Your task to perform on an android device: open a bookmark in the chrome app Image 0: 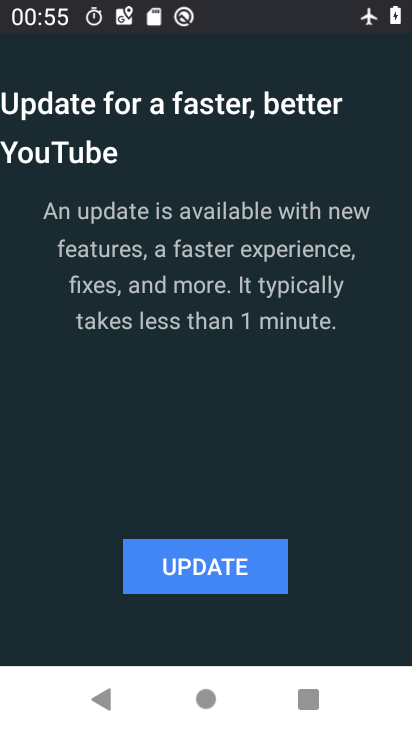
Step 0: press back button
Your task to perform on an android device: open a bookmark in the chrome app Image 1: 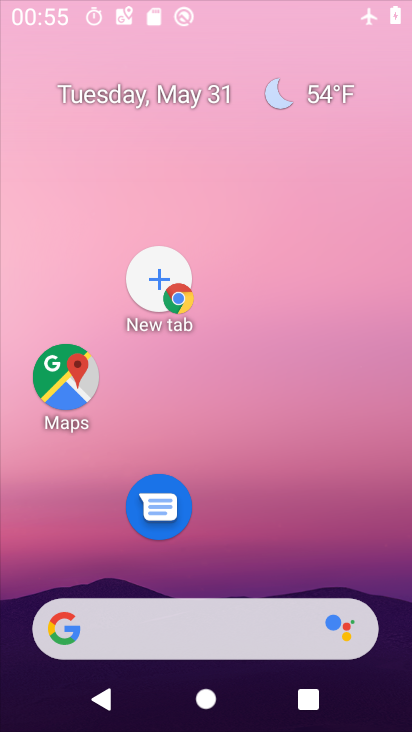
Step 1: press back button
Your task to perform on an android device: open a bookmark in the chrome app Image 2: 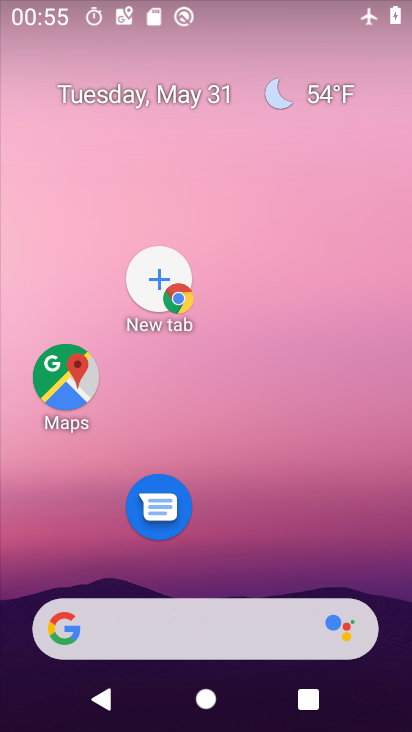
Step 2: drag from (225, 714) to (203, 225)
Your task to perform on an android device: open a bookmark in the chrome app Image 3: 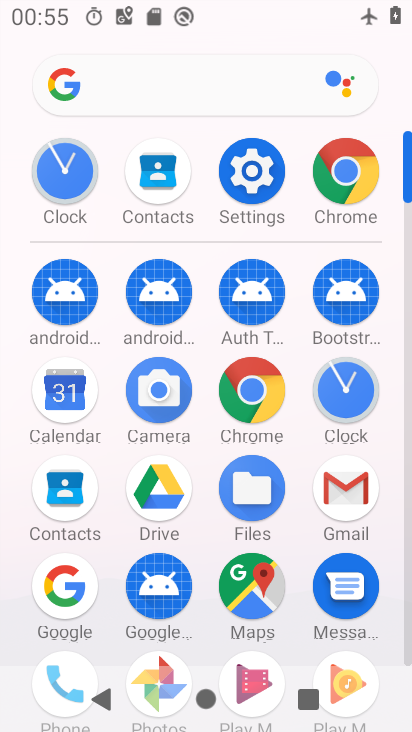
Step 3: click (334, 174)
Your task to perform on an android device: open a bookmark in the chrome app Image 4: 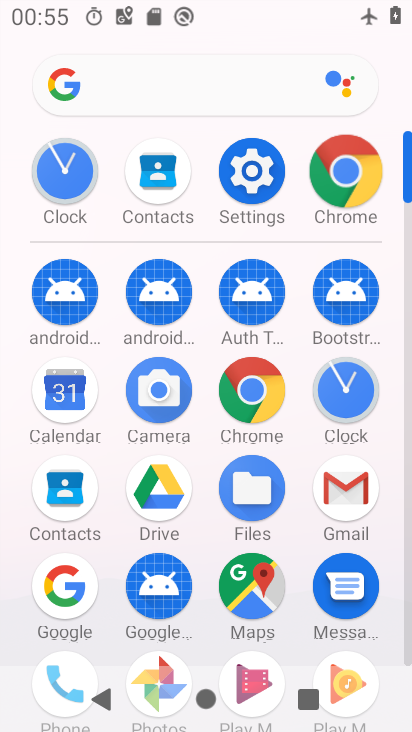
Step 4: click (335, 173)
Your task to perform on an android device: open a bookmark in the chrome app Image 5: 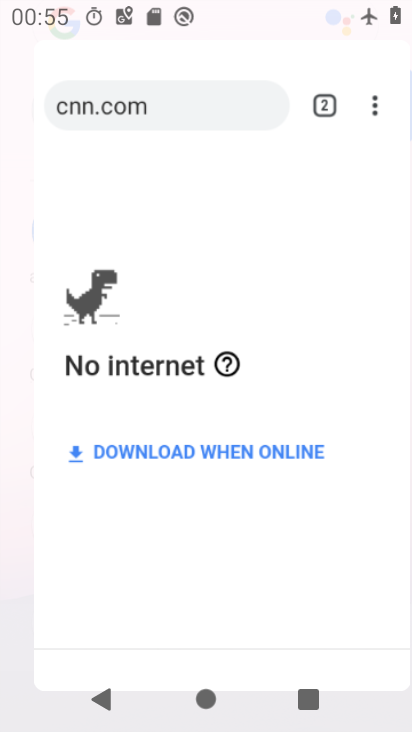
Step 5: click (335, 173)
Your task to perform on an android device: open a bookmark in the chrome app Image 6: 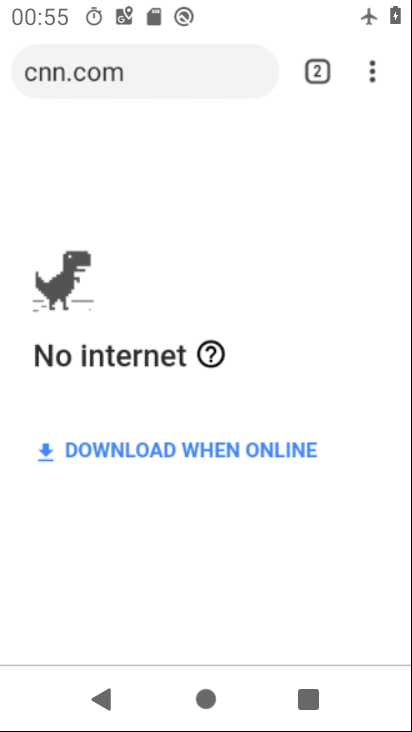
Step 6: click (335, 173)
Your task to perform on an android device: open a bookmark in the chrome app Image 7: 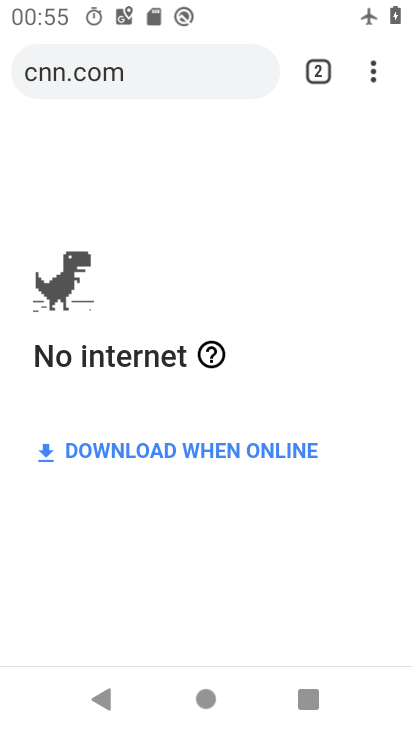
Step 7: drag from (372, 73) to (127, 268)
Your task to perform on an android device: open a bookmark in the chrome app Image 8: 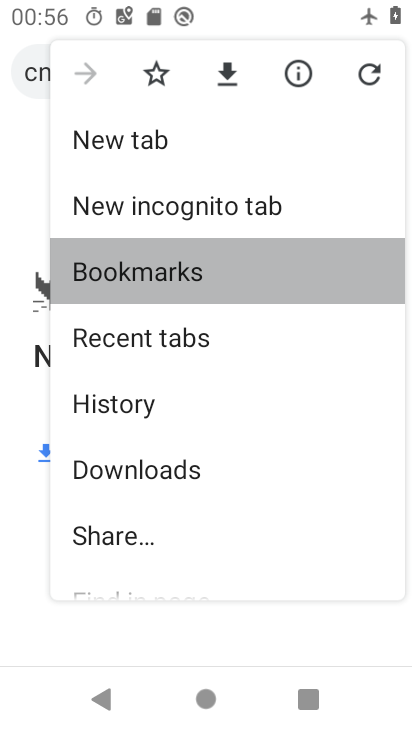
Step 8: click (128, 267)
Your task to perform on an android device: open a bookmark in the chrome app Image 9: 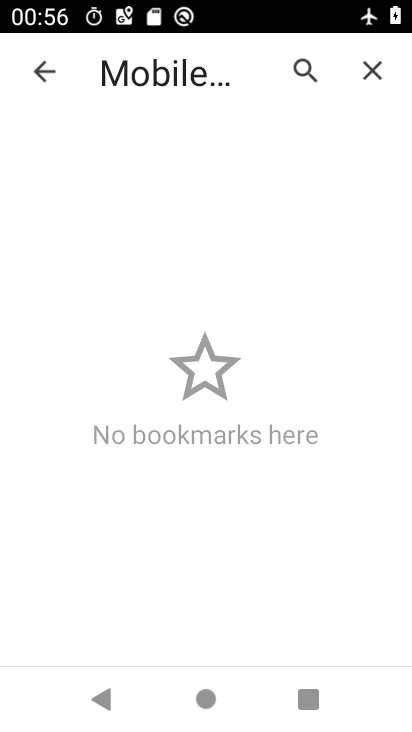
Step 9: task complete